Your task to perform on an android device: Open calendar and show me the third week of next month Image 0: 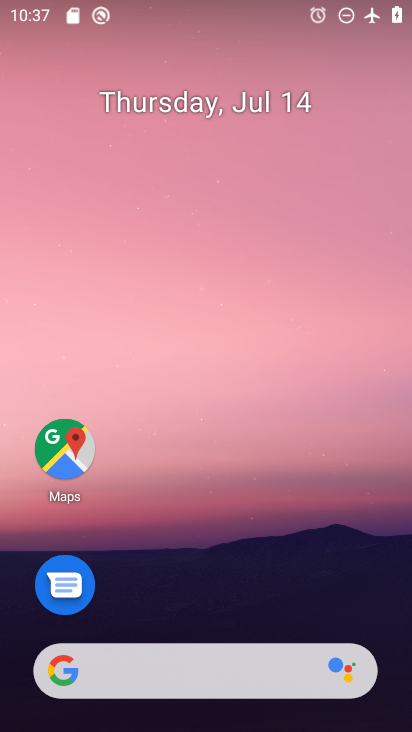
Step 0: drag from (217, 624) to (247, 7)
Your task to perform on an android device: Open calendar and show me the third week of next month Image 1: 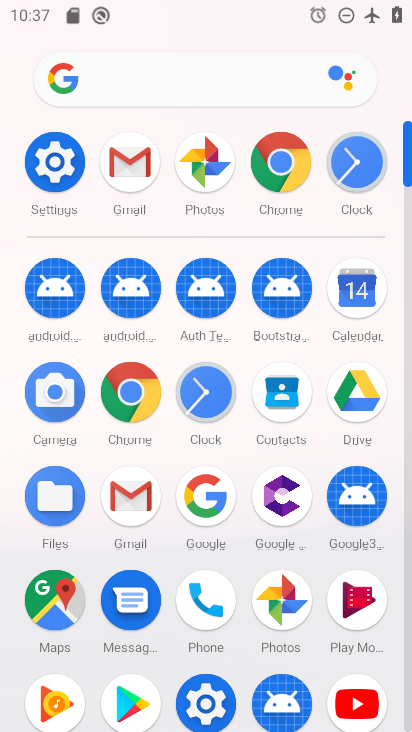
Step 1: click (367, 303)
Your task to perform on an android device: Open calendar and show me the third week of next month Image 2: 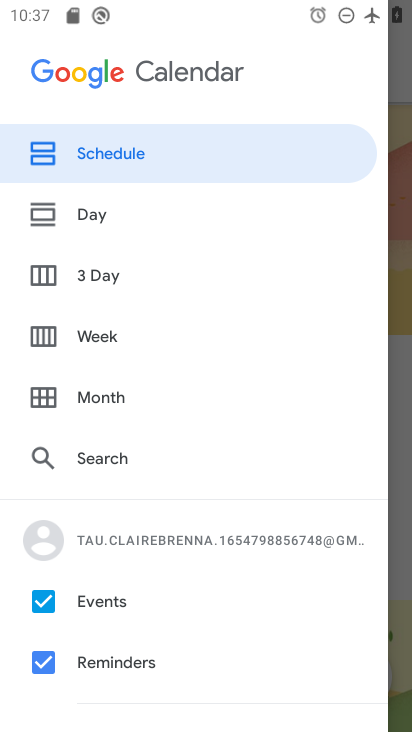
Step 2: click (86, 348)
Your task to perform on an android device: Open calendar and show me the third week of next month Image 3: 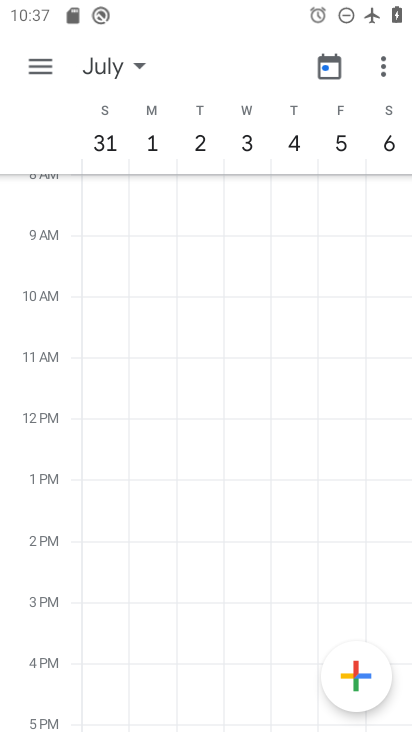
Step 3: task complete